Your task to perform on an android device: Is it going to rain today? Image 0: 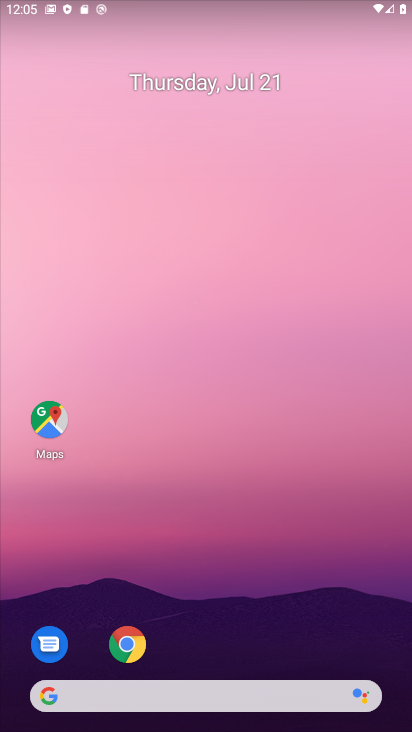
Step 0: drag from (187, 653) to (239, 89)
Your task to perform on an android device: Is it going to rain today? Image 1: 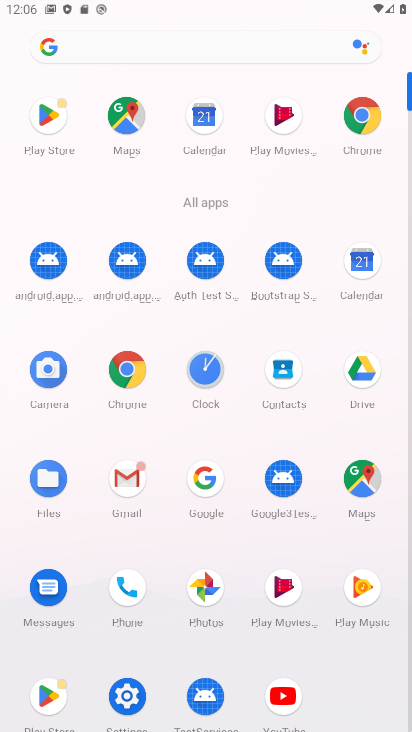
Step 1: click (214, 497)
Your task to perform on an android device: Is it going to rain today? Image 2: 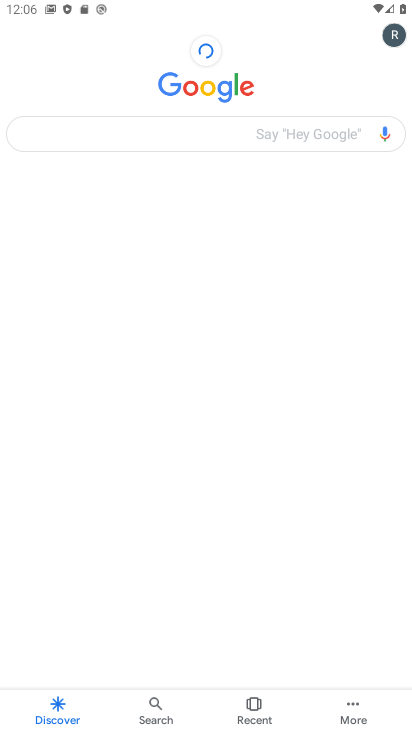
Step 2: click (197, 133)
Your task to perform on an android device: Is it going to rain today? Image 3: 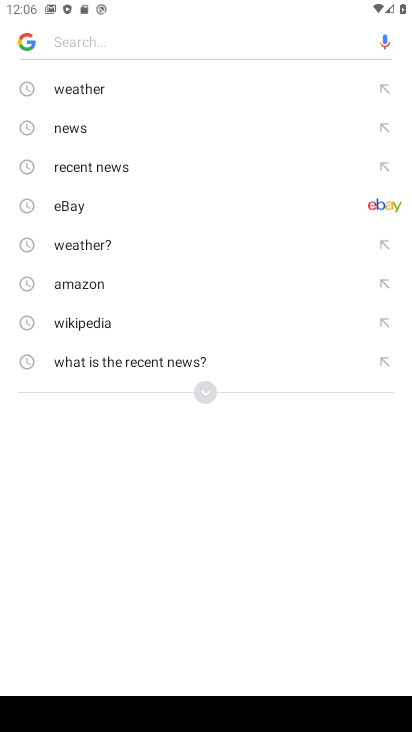
Step 3: click (73, 75)
Your task to perform on an android device: Is it going to rain today? Image 4: 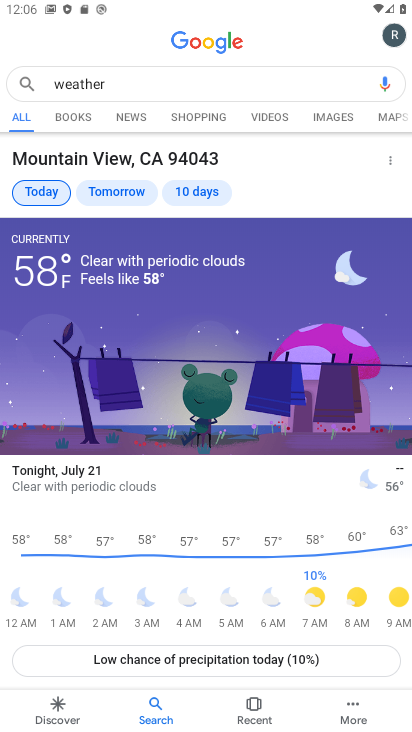
Step 4: task complete